Your task to perform on an android device: Open wifi settings Image 0: 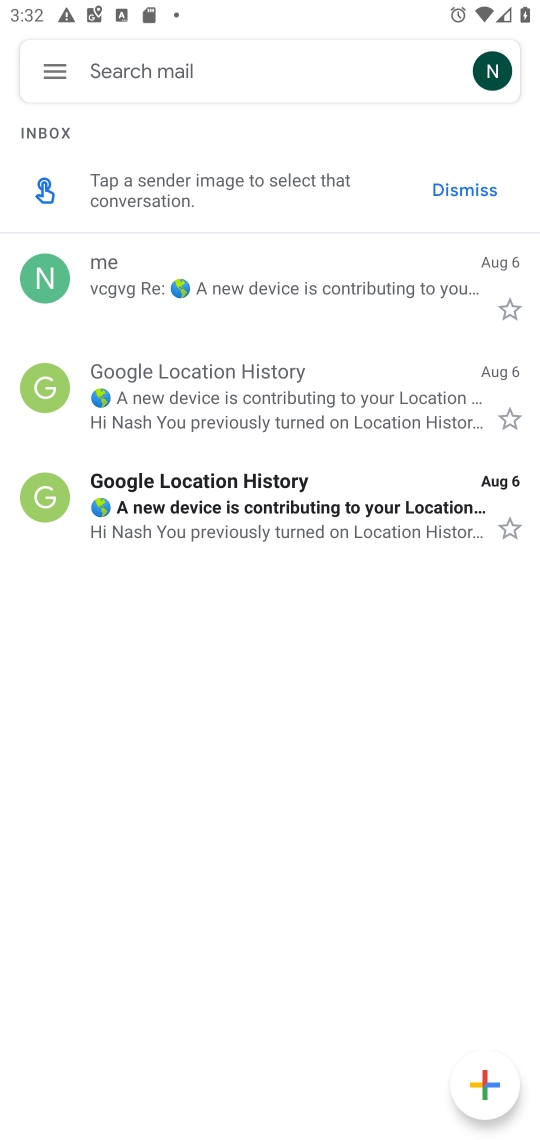
Step 0: press home button
Your task to perform on an android device: Open wifi settings Image 1: 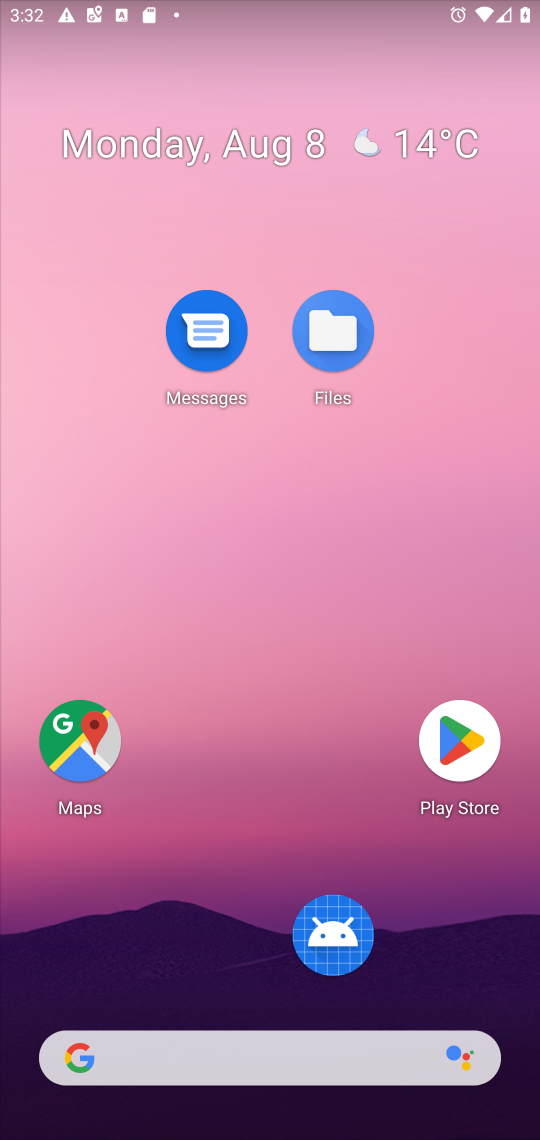
Step 1: drag from (348, 1047) to (359, 150)
Your task to perform on an android device: Open wifi settings Image 2: 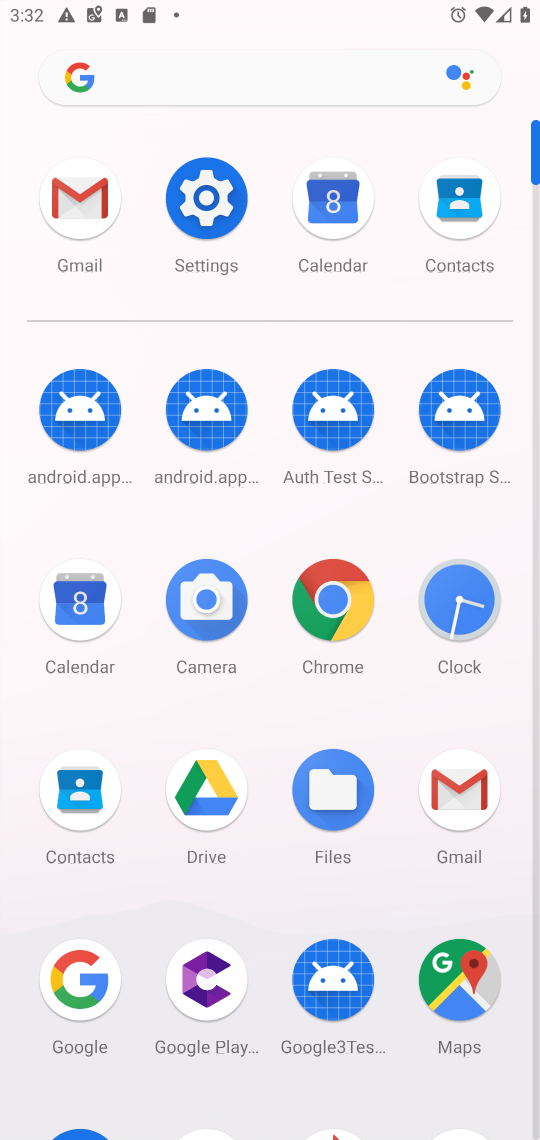
Step 2: click (195, 190)
Your task to perform on an android device: Open wifi settings Image 3: 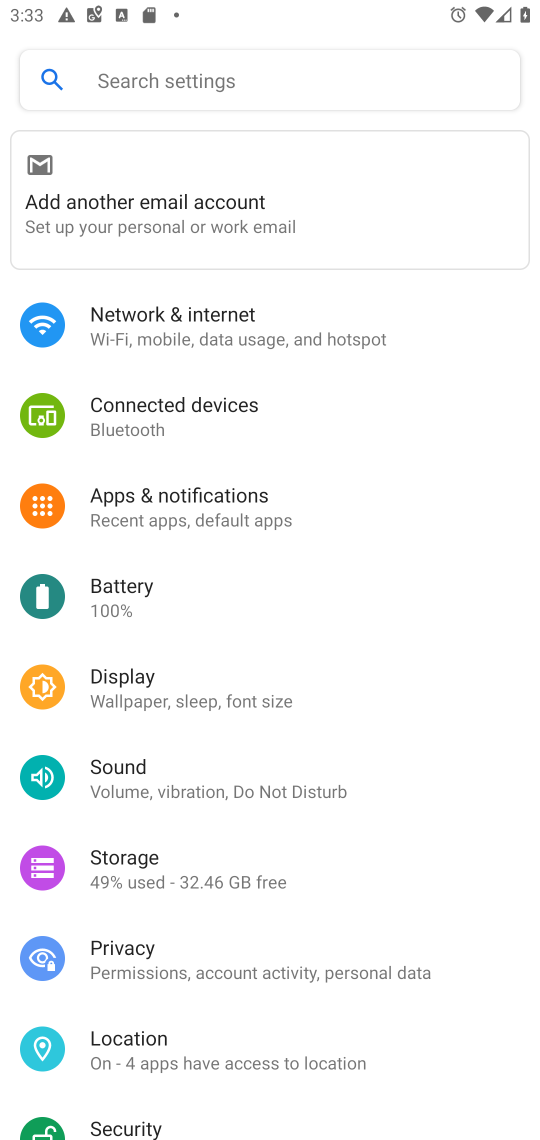
Step 3: click (182, 330)
Your task to perform on an android device: Open wifi settings Image 4: 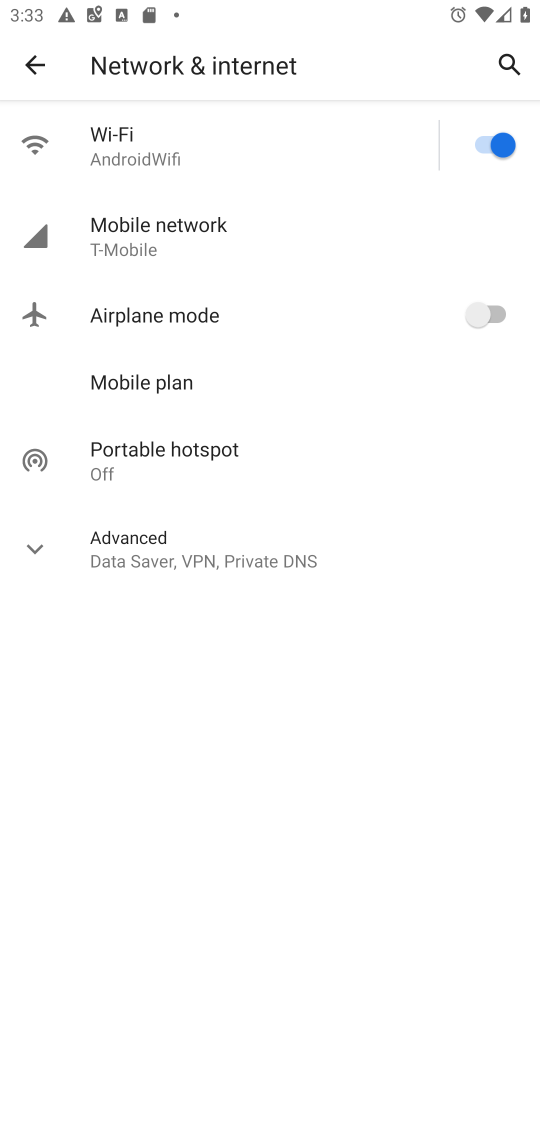
Step 4: click (202, 146)
Your task to perform on an android device: Open wifi settings Image 5: 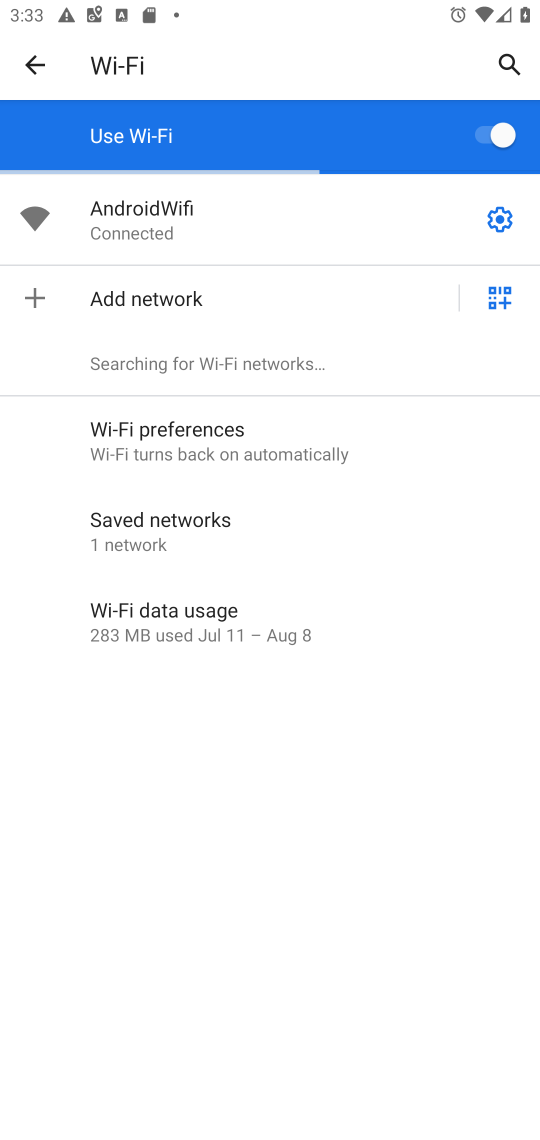
Step 5: task complete